Your task to perform on an android device: Go to display settings Image 0: 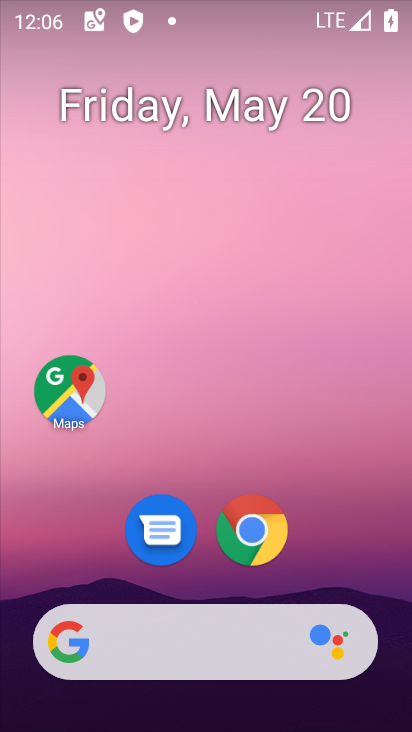
Step 0: drag from (235, 639) to (268, 1)
Your task to perform on an android device: Go to display settings Image 1: 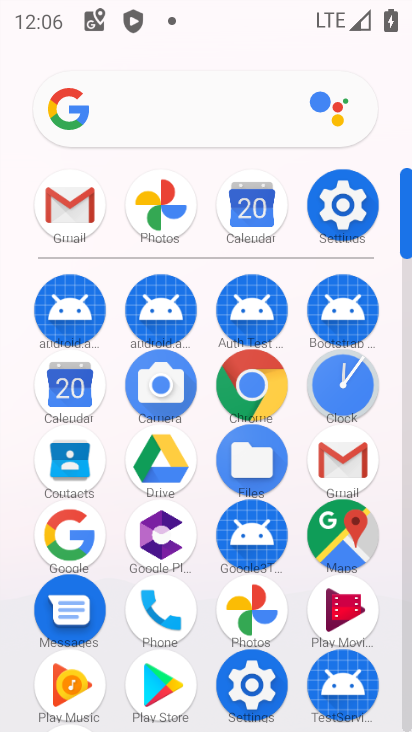
Step 1: click (338, 211)
Your task to perform on an android device: Go to display settings Image 2: 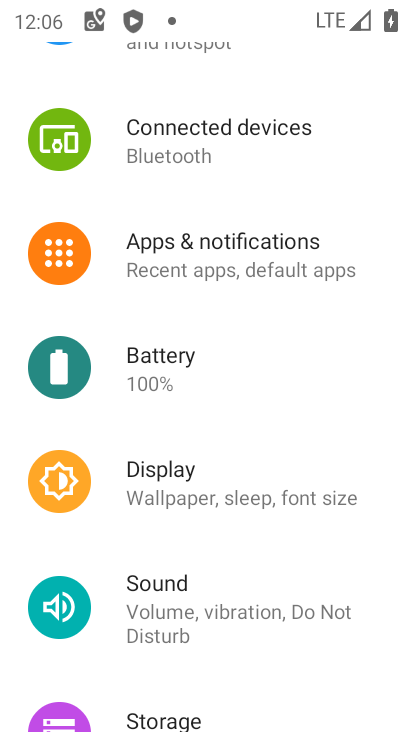
Step 2: drag from (229, 590) to (341, 206)
Your task to perform on an android device: Go to display settings Image 3: 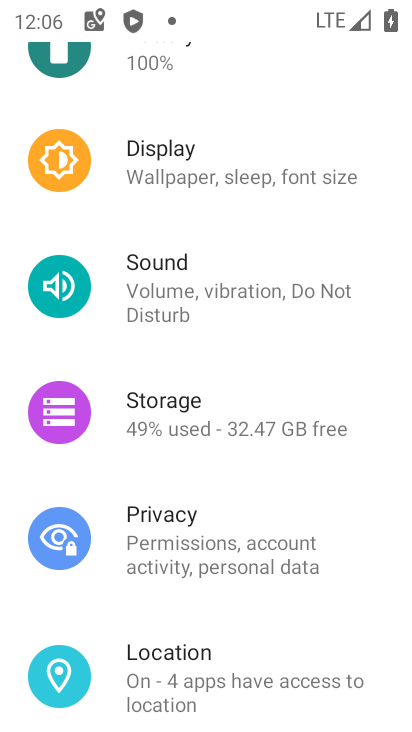
Step 3: click (238, 163)
Your task to perform on an android device: Go to display settings Image 4: 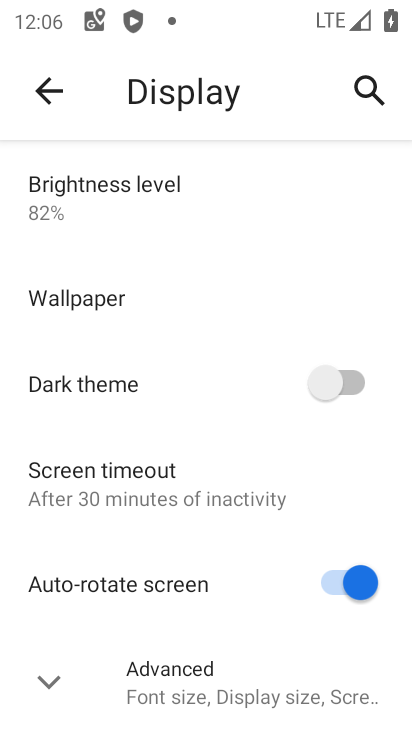
Step 4: task complete